Your task to perform on an android device: Open location settings Image 0: 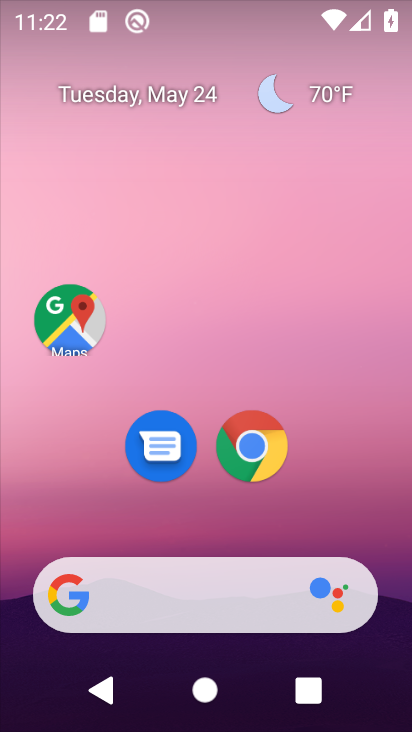
Step 0: drag from (188, 497) to (181, 84)
Your task to perform on an android device: Open location settings Image 1: 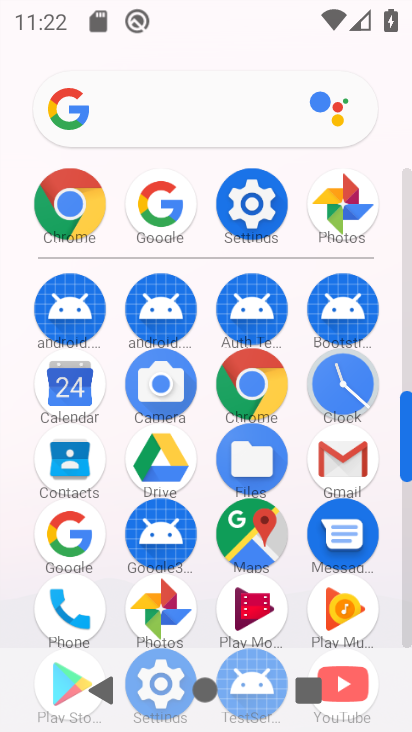
Step 1: click (240, 204)
Your task to perform on an android device: Open location settings Image 2: 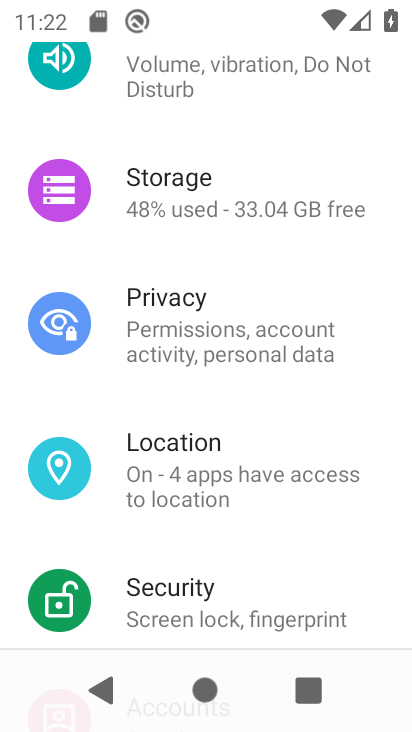
Step 2: click (204, 499)
Your task to perform on an android device: Open location settings Image 3: 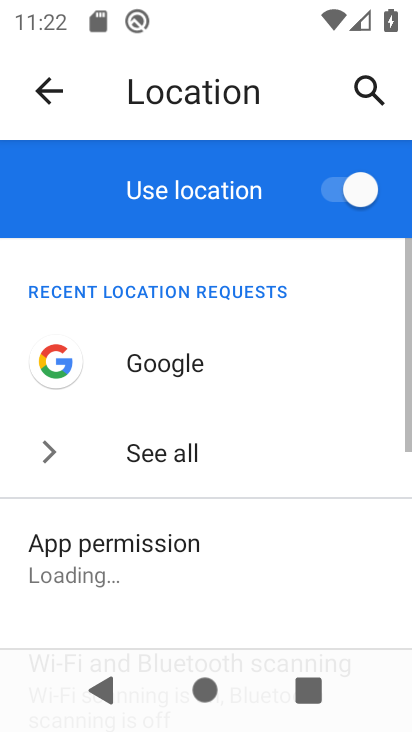
Step 3: task complete